Your task to perform on an android device: find photos in the google photos app Image 0: 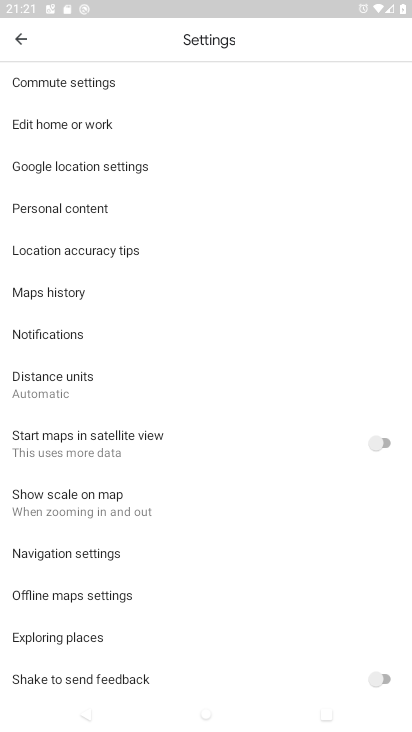
Step 0: press home button
Your task to perform on an android device: find photos in the google photos app Image 1: 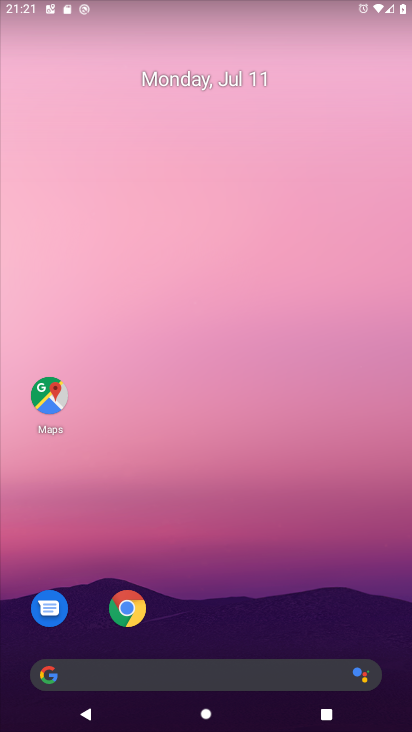
Step 1: drag from (297, 630) to (203, 1)
Your task to perform on an android device: find photos in the google photos app Image 2: 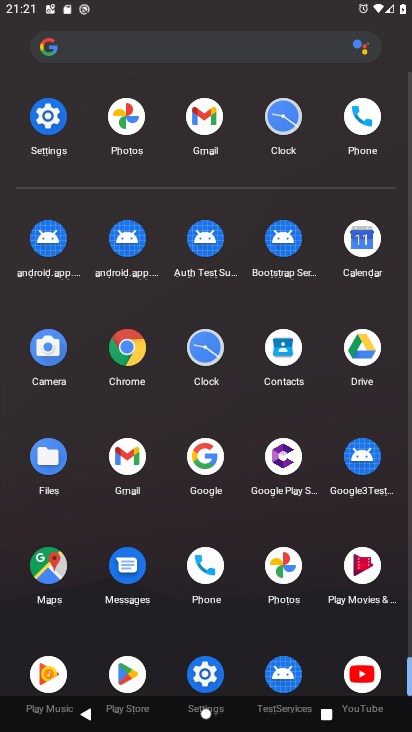
Step 2: click (138, 113)
Your task to perform on an android device: find photos in the google photos app Image 3: 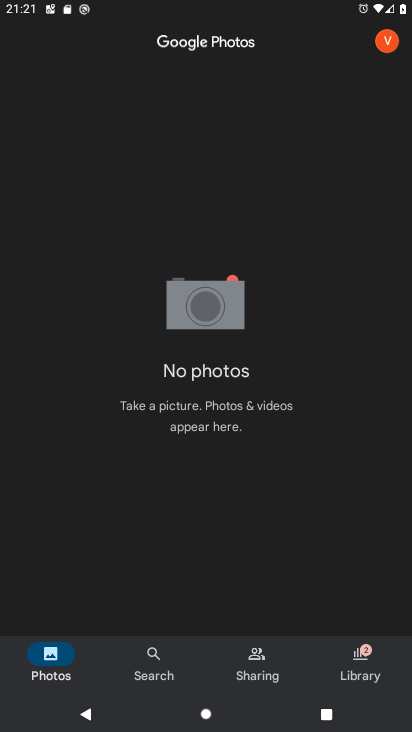
Step 3: click (338, 672)
Your task to perform on an android device: find photos in the google photos app Image 4: 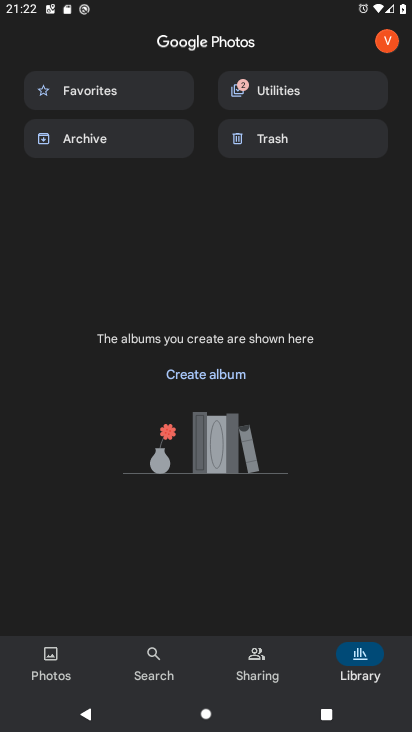
Step 4: click (128, 128)
Your task to perform on an android device: find photos in the google photos app Image 5: 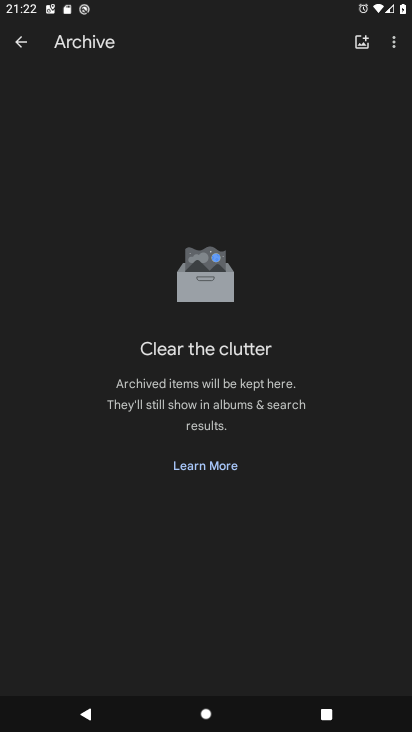
Step 5: task complete